Your task to perform on an android device: Go to calendar. Show me events next week Image 0: 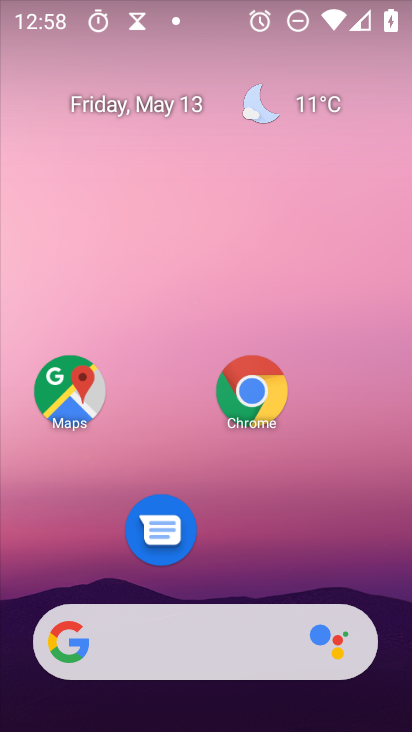
Step 0: drag from (175, 654) to (296, 207)
Your task to perform on an android device: Go to calendar. Show me events next week Image 1: 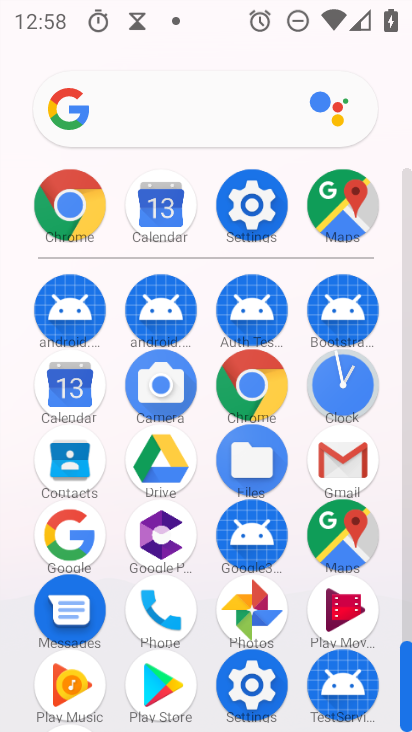
Step 1: click (149, 223)
Your task to perform on an android device: Go to calendar. Show me events next week Image 2: 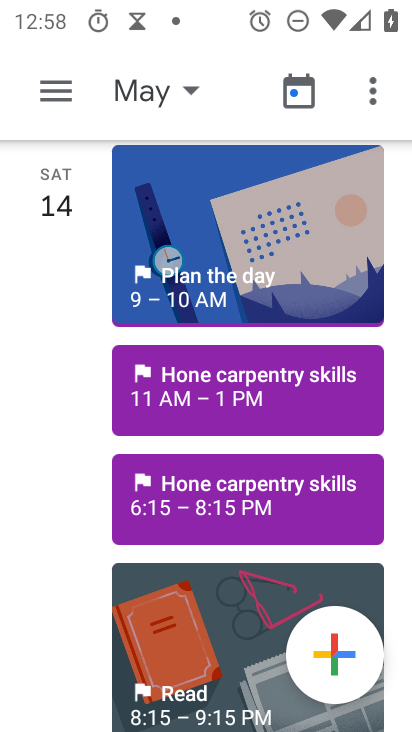
Step 2: click (155, 90)
Your task to perform on an android device: Go to calendar. Show me events next week Image 3: 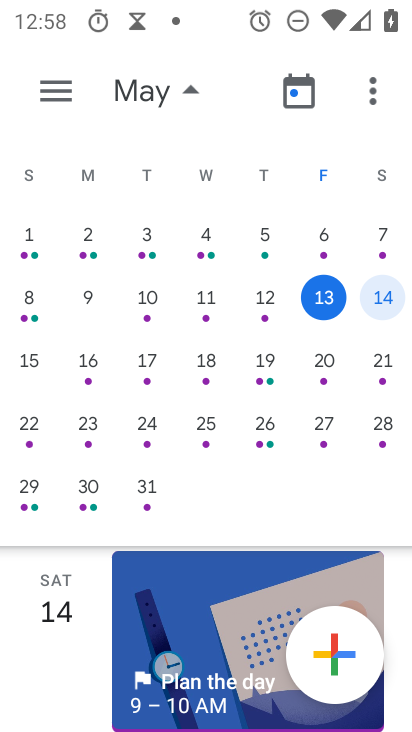
Step 3: click (30, 364)
Your task to perform on an android device: Go to calendar. Show me events next week Image 4: 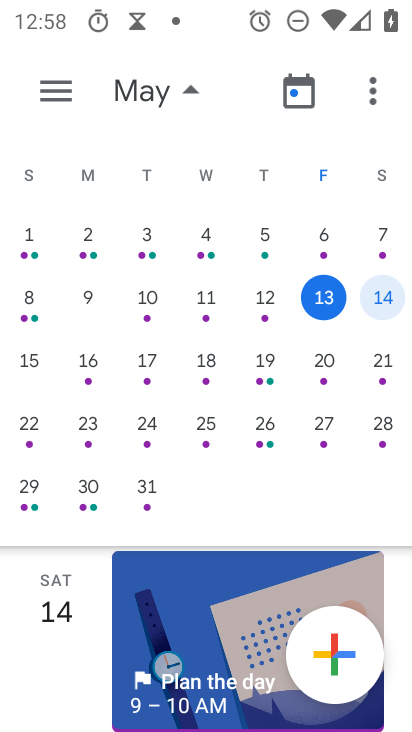
Step 4: click (33, 363)
Your task to perform on an android device: Go to calendar. Show me events next week Image 5: 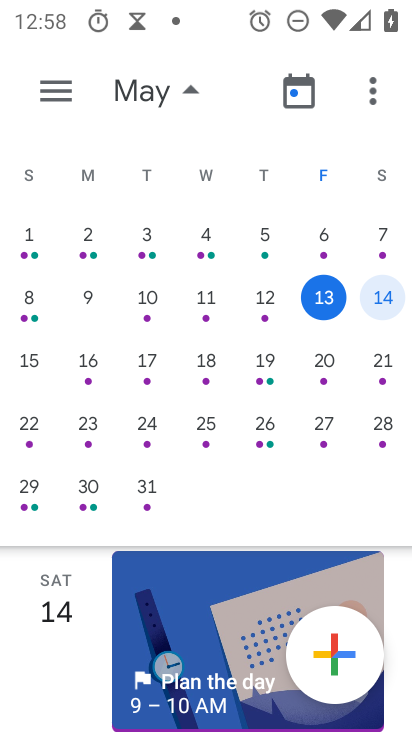
Step 5: click (42, 362)
Your task to perform on an android device: Go to calendar. Show me events next week Image 6: 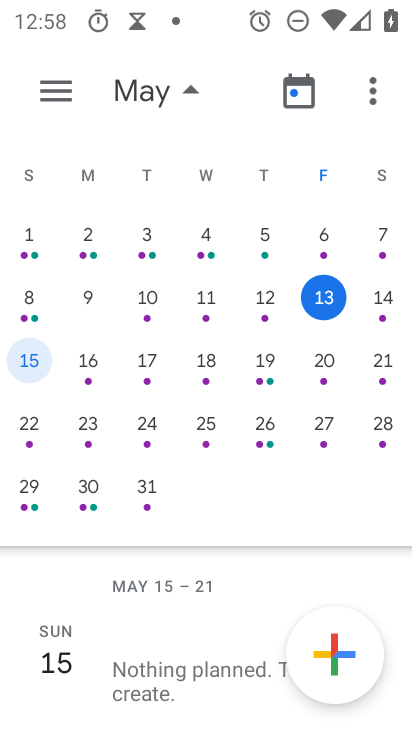
Step 6: click (68, 90)
Your task to perform on an android device: Go to calendar. Show me events next week Image 7: 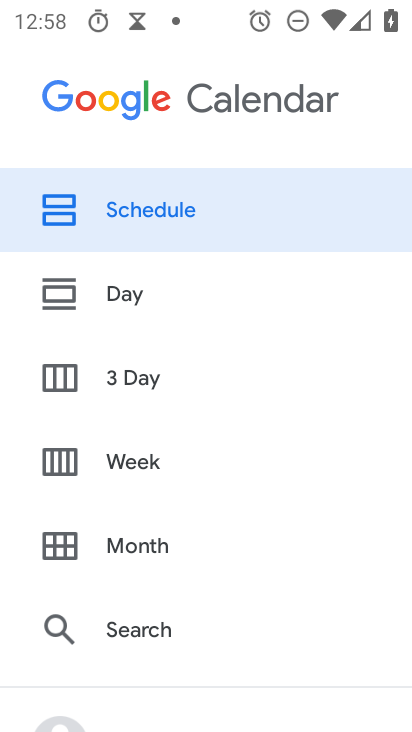
Step 7: click (127, 469)
Your task to perform on an android device: Go to calendar. Show me events next week Image 8: 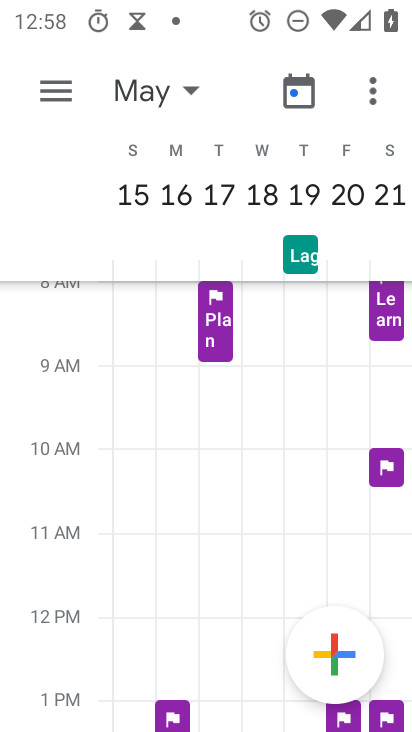
Step 8: click (73, 112)
Your task to perform on an android device: Go to calendar. Show me events next week Image 9: 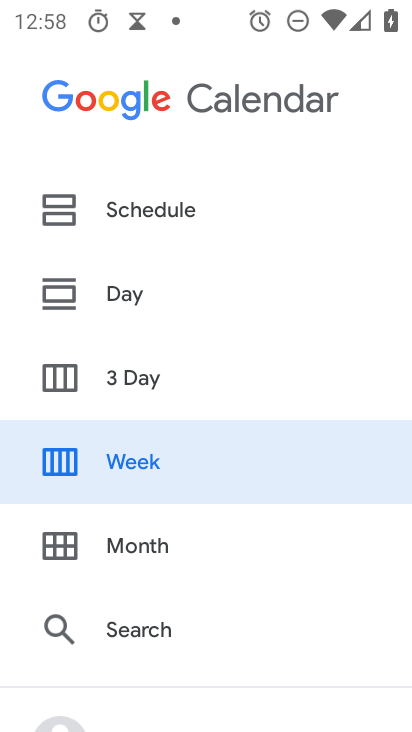
Step 9: click (118, 209)
Your task to perform on an android device: Go to calendar. Show me events next week Image 10: 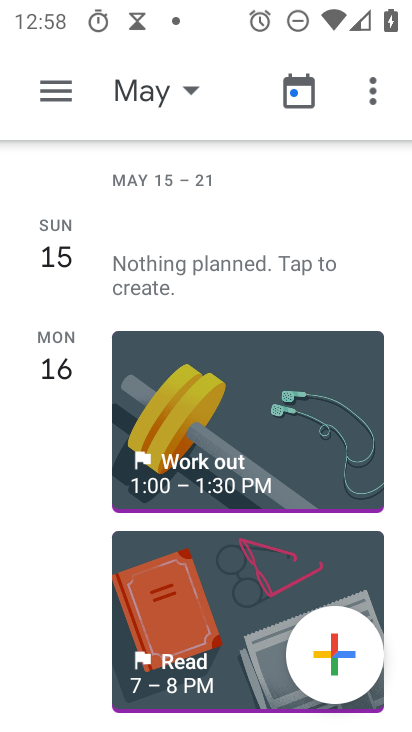
Step 10: drag from (196, 588) to (353, 188)
Your task to perform on an android device: Go to calendar. Show me events next week Image 11: 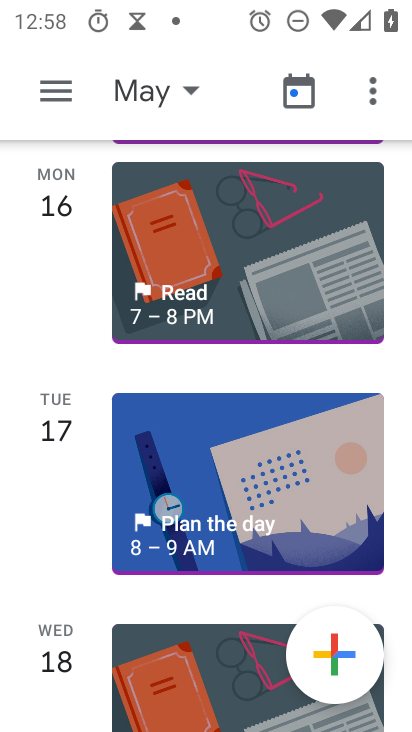
Step 11: drag from (206, 657) to (374, 210)
Your task to perform on an android device: Go to calendar. Show me events next week Image 12: 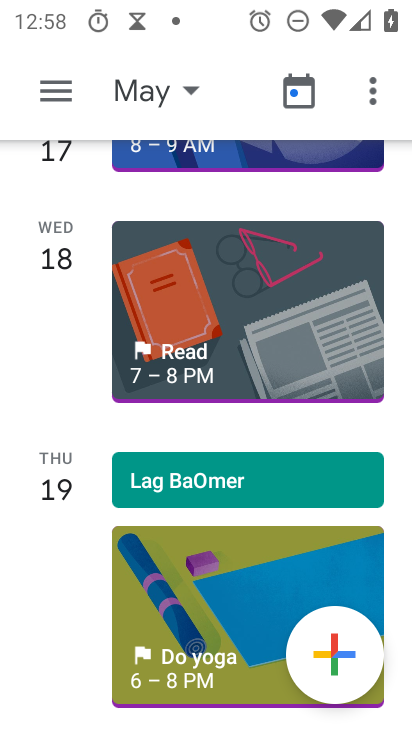
Step 12: drag from (180, 666) to (294, 184)
Your task to perform on an android device: Go to calendar. Show me events next week Image 13: 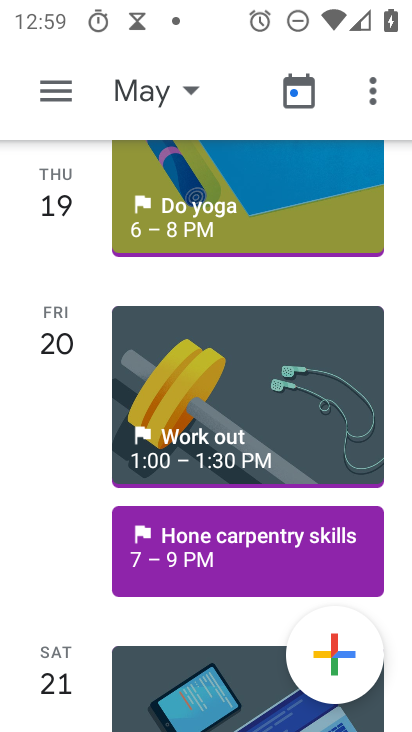
Step 13: click (210, 551)
Your task to perform on an android device: Go to calendar. Show me events next week Image 14: 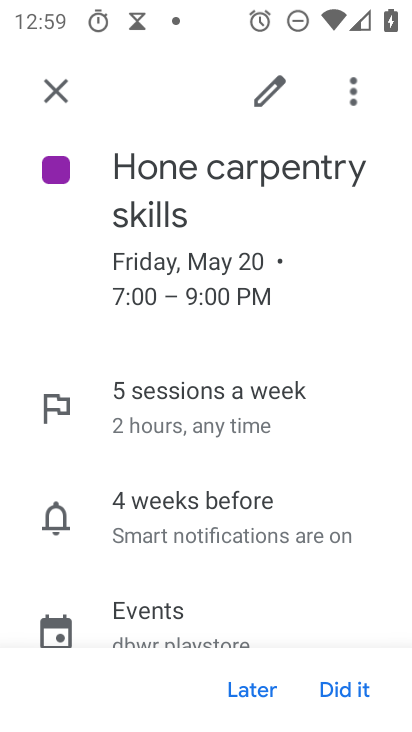
Step 14: task complete